Your task to perform on an android device: Go to privacy settings Image 0: 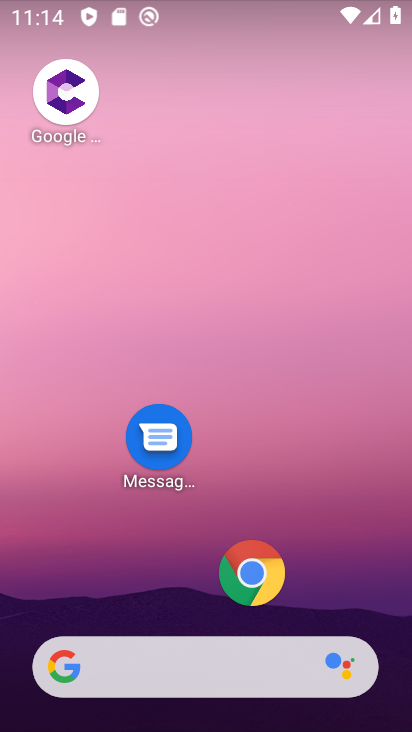
Step 0: drag from (183, 596) to (164, 133)
Your task to perform on an android device: Go to privacy settings Image 1: 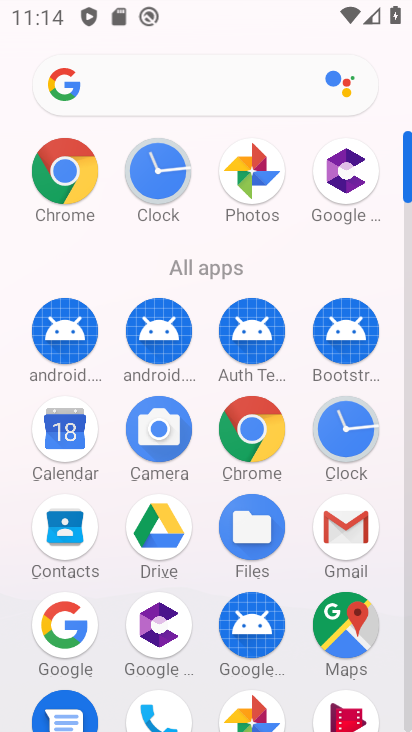
Step 1: drag from (206, 639) to (244, 296)
Your task to perform on an android device: Go to privacy settings Image 2: 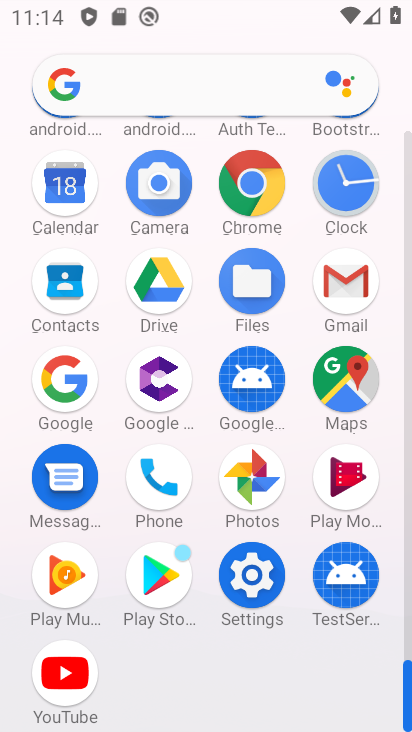
Step 2: click (266, 587)
Your task to perform on an android device: Go to privacy settings Image 3: 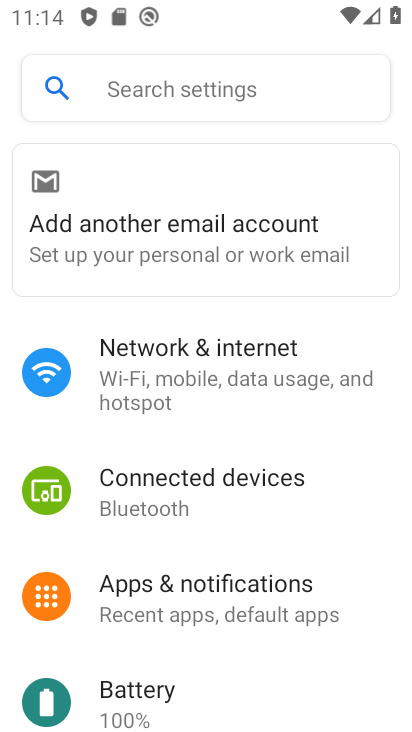
Step 3: drag from (197, 677) to (239, 207)
Your task to perform on an android device: Go to privacy settings Image 4: 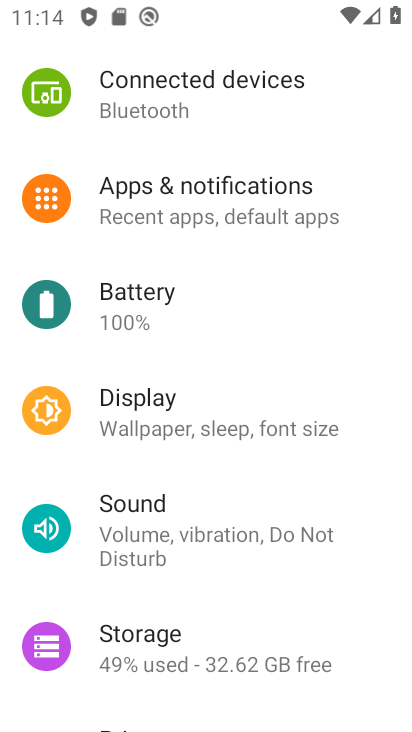
Step 4: drag from (188, 609) to (199, 458)
Your task to perform on an android device: Go to privacy settings Image 5: 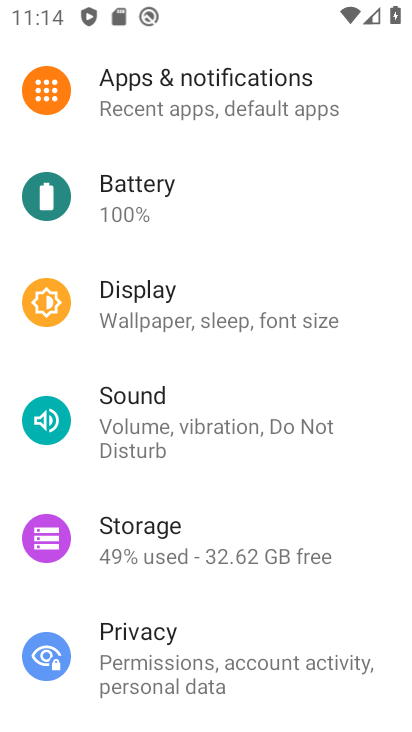
Step 5: click (200, 649)
Your task to perform on an android device: Go to privacy settings Image 6: 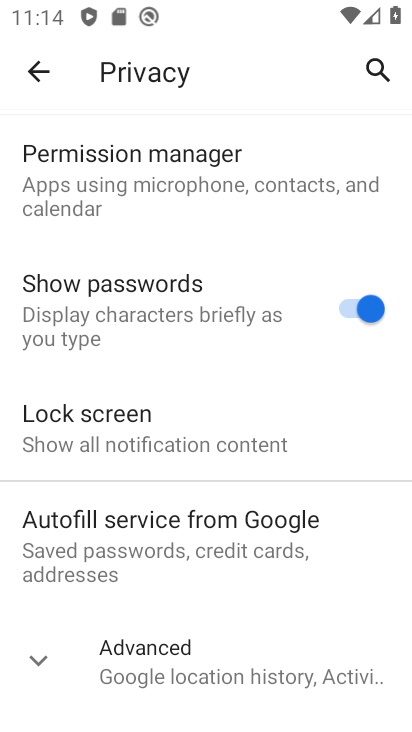
Step 6: task complete